Your task to perform on an android device: Show me recent news Image 0: 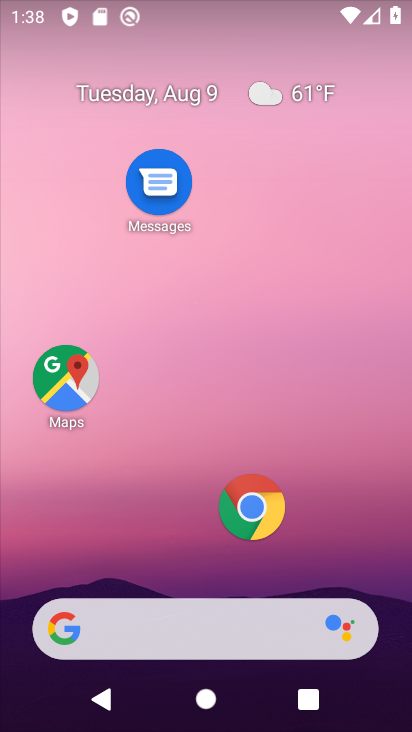
Step 0: click (200, 632)
Your task to perform on an android device: Show me recent news Image 1: 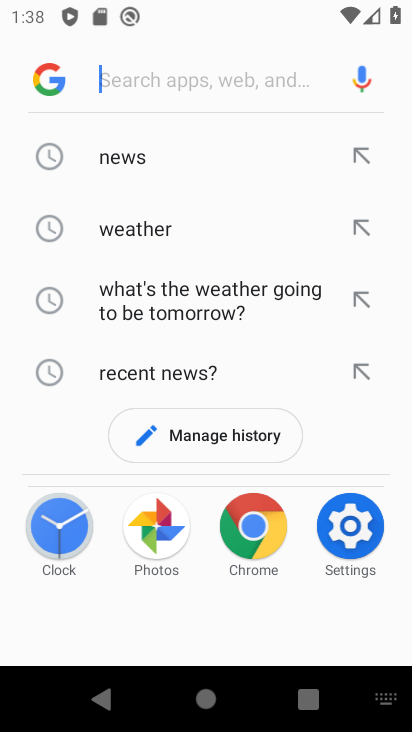
Step 1: click (165, 374)
Your task to perform on an android device: Show me recent news Image 2: 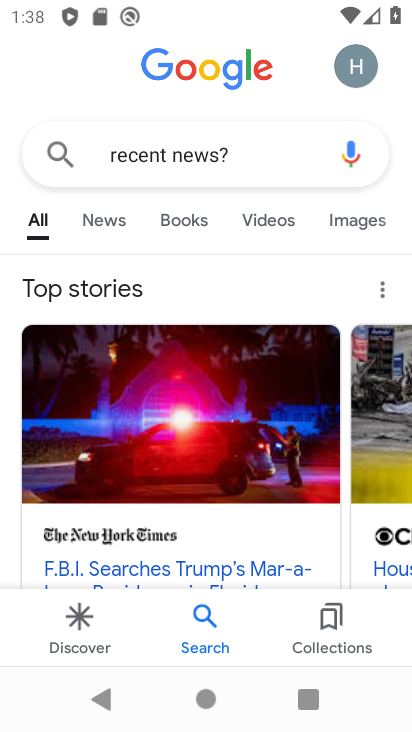
Step 2: task complete